Your task to perform on an android device: change notifications settings Image 0: 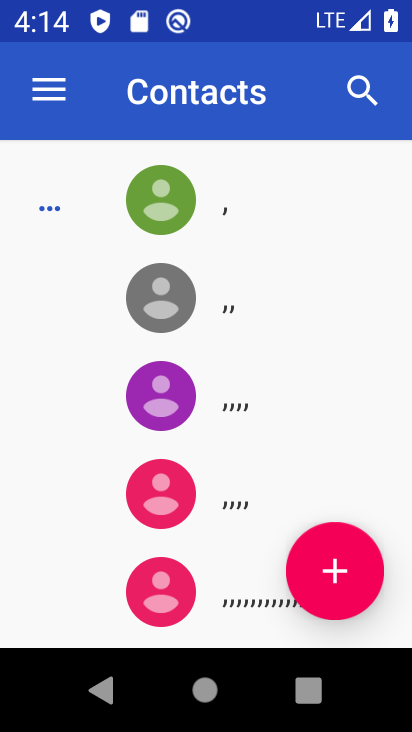
Step 0: press home button
Your task to perform on an android device: change notifications settings Image 1: 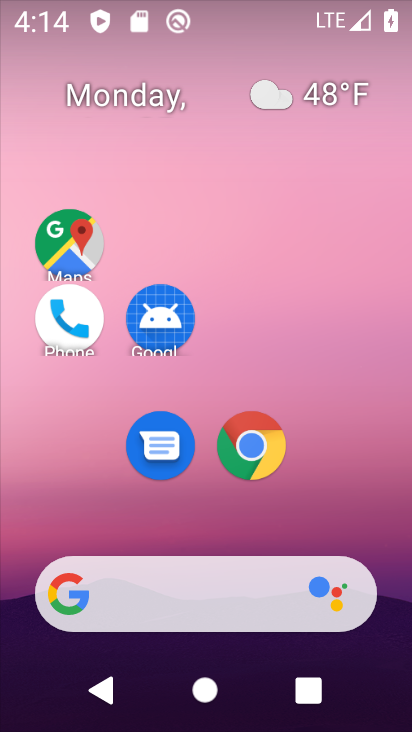
Step 1: drag from (220, 504) to (179, 184)
Your task to perform on an android device: change notifications settings Image 2: 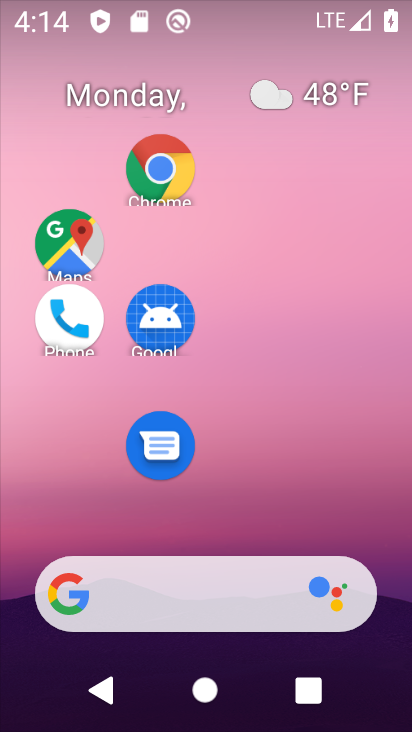
Step 2: drag from (288, 477) to (239, 43)
Your task to perform on an android device: change notifications settings Image 3: 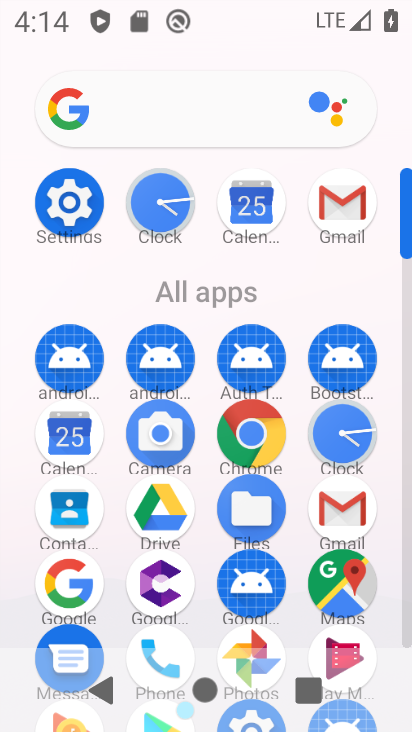
Step 3: click (69, 216)
Your task to perform on an android device: change notifications settings Image 4: 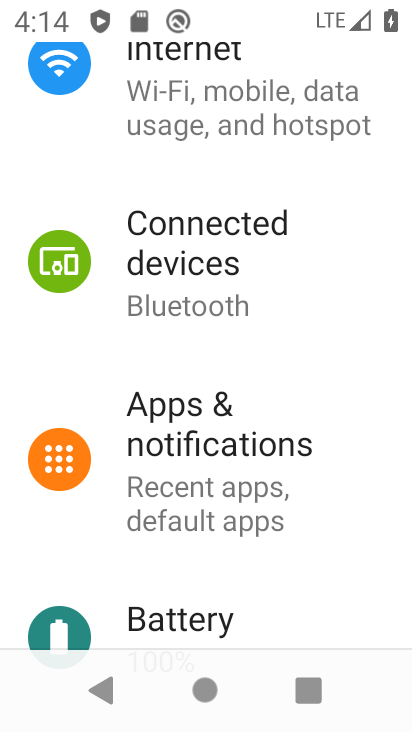
Step 4: click (187, 465)
Your task to perform on an android device: change notifications settings Image 5: 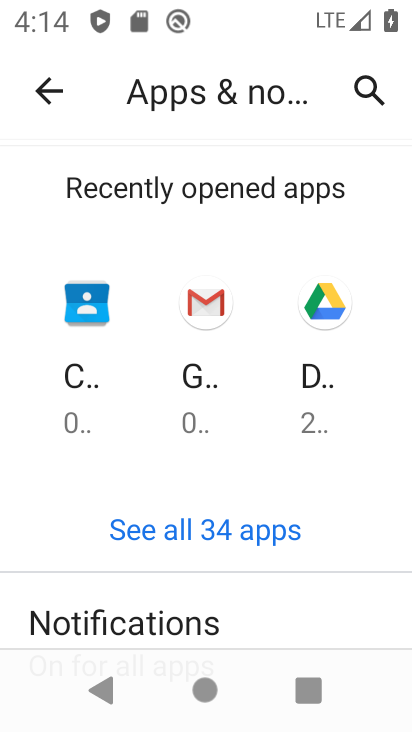
Step 5: click (213, 600)
Your task to perform on an android device: change notifications settings Image 6: 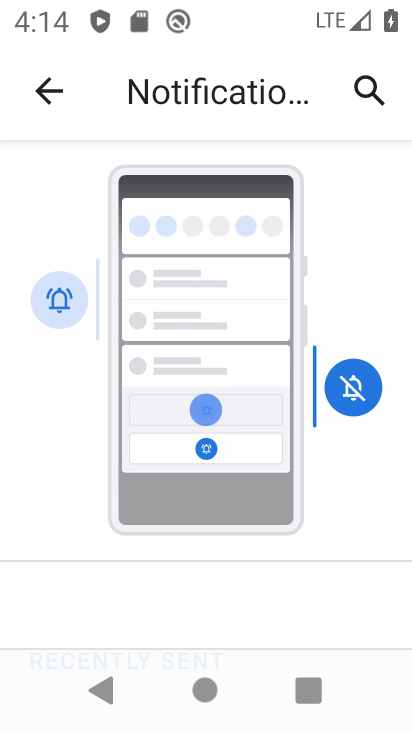
Step 6: drag from (234, 579) to (197, 152)
Your task to perform on an android device: change notifications settings Image 7: 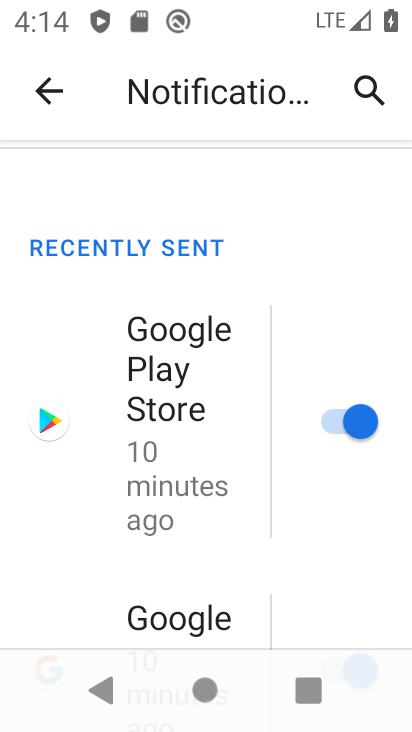
Step 7: click (351, 414)
Your task to perform on an android device: change notifications settings Image 8: 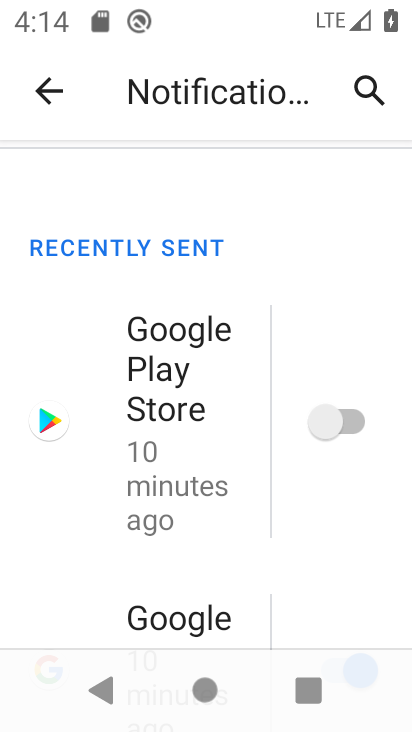
Step 8: drag from (288, 559) to (229, 301)
Your task to perform on an android device: change notifications settings Image 9: 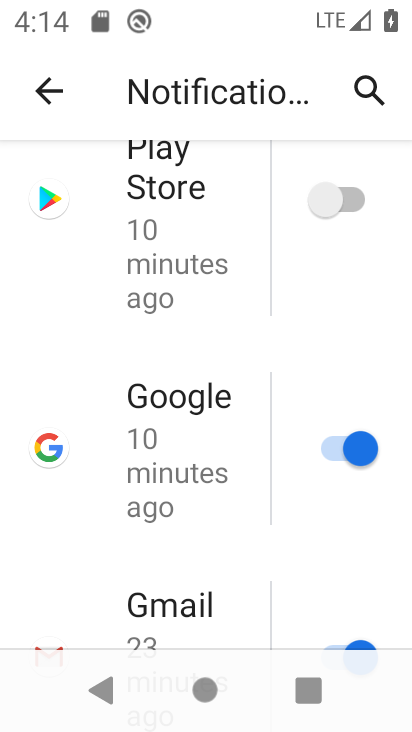
Step 9: click (343, 437)
Your task to perform on an android device: change notifications settings Image 10: 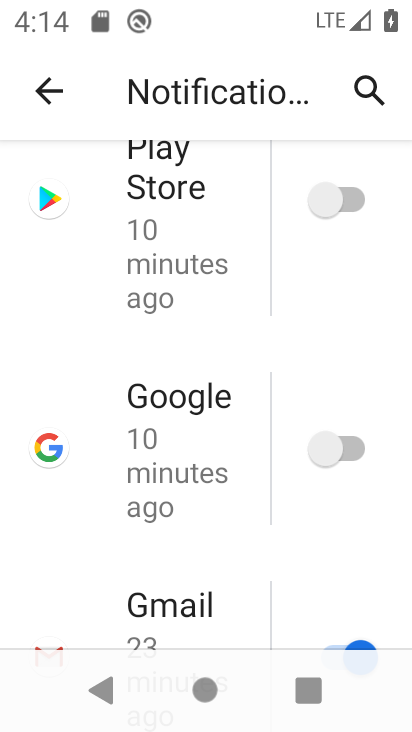
Step 10: drag from (259, 521) to (226, 235)
Your task to perform on an android device: change notifications settings Image 11: 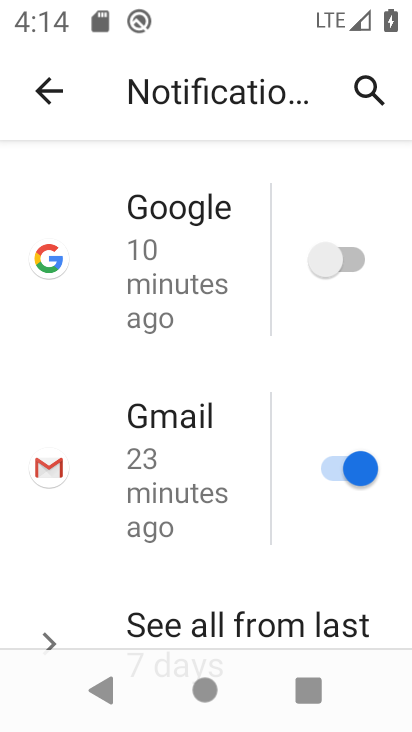
Step 11: click (340, 461)
Your task to perform on an android device: change notifications settings Image 12: 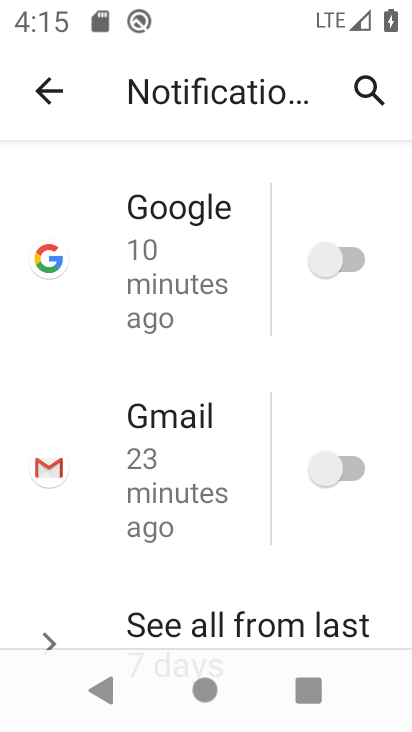
Step 12: task complete